Your task to perform on an android device: When is my next meeting? Image 0: 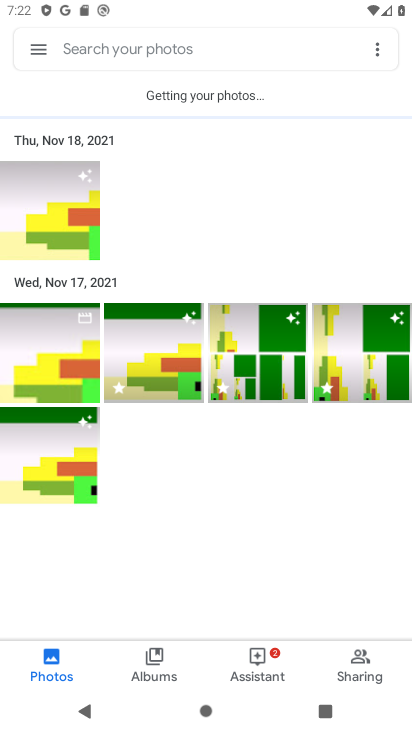
Step 0: press home button
Your task to perform on an android device: When is my next meeting? Image 1: 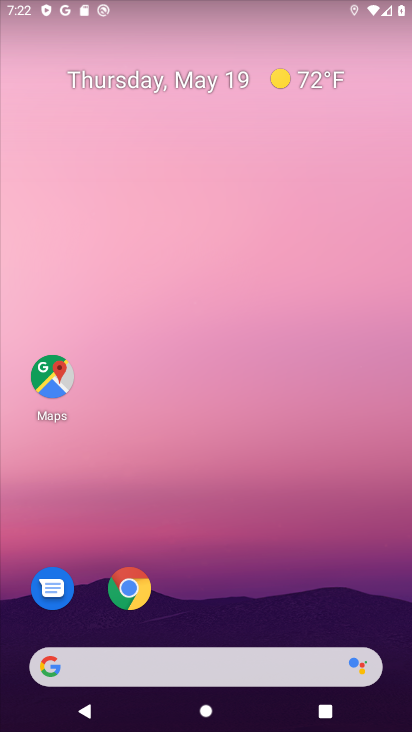
Step 1: drag from (265, 613) to (230, 124)
Your task to perform on an android device: When is my next meeting? Image 2: 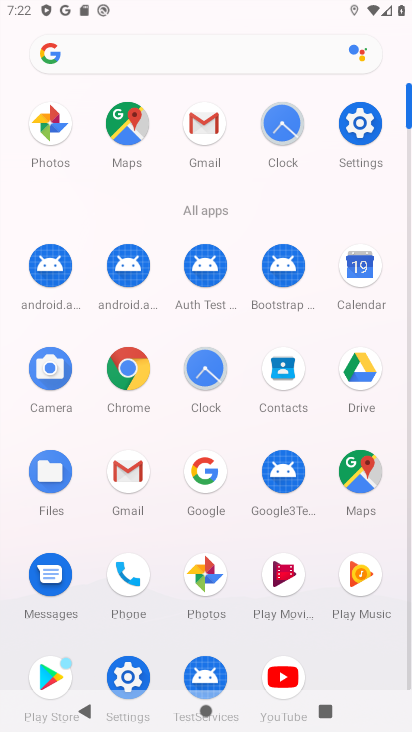
Step 2: click (374, 269)
Your task to perform on an android device: When is my next meeting? Image 3: 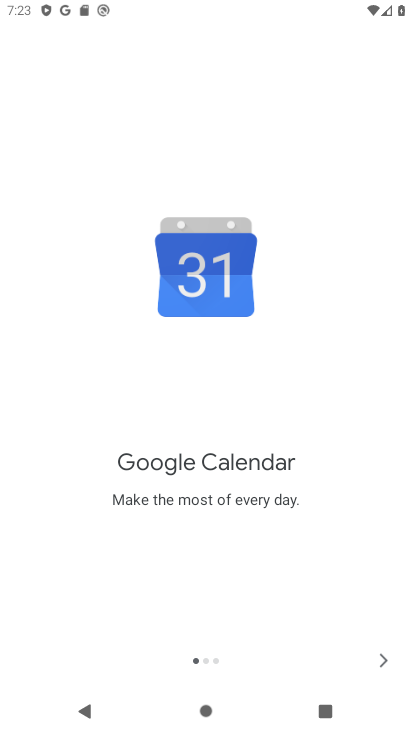
Step 3: click (388, 655)
Your task to perform on an android device: When is my next meeting? Image 4: 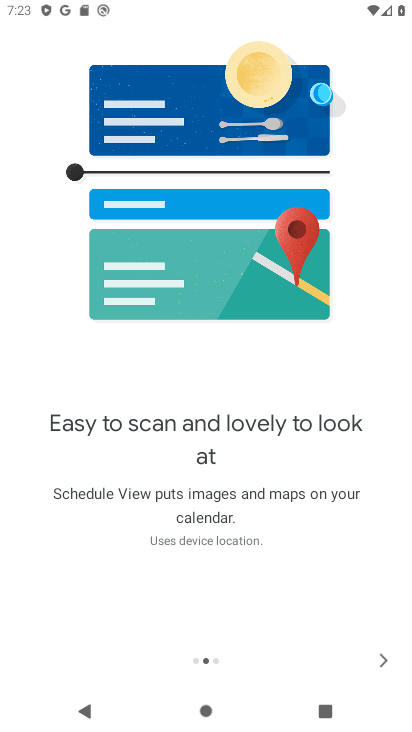
Step 4: click (383, 653)
Your task to perform on an android device: When is my next meeting? Image 5: 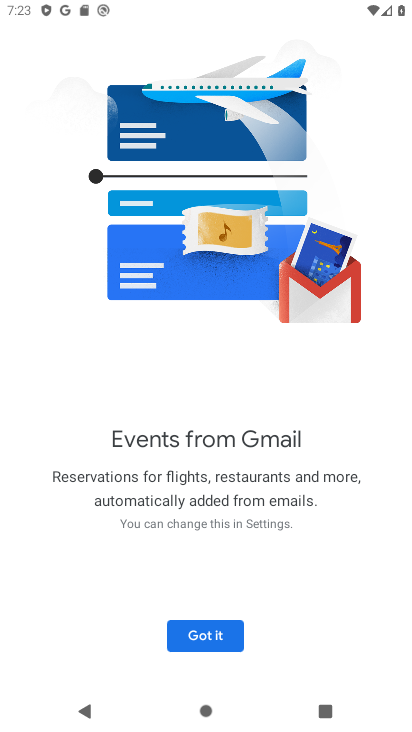
Step 5: click (216, 635)
Your task to perform on an android device: When is my next meeting? Image 6: 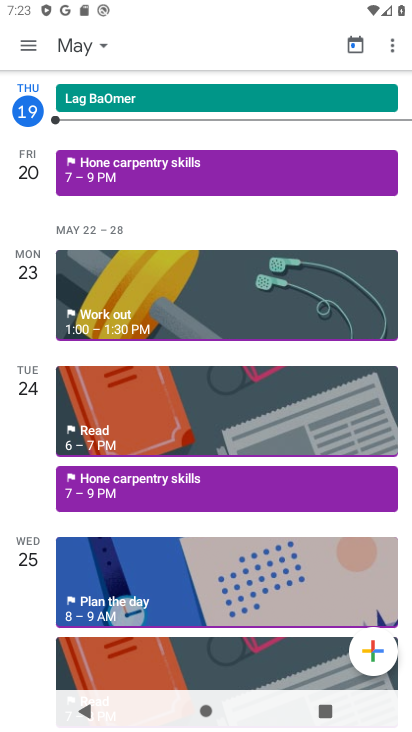
Step 6: task complete